Your task to perform on an android device: check the backup settings in the google photos Image 0: 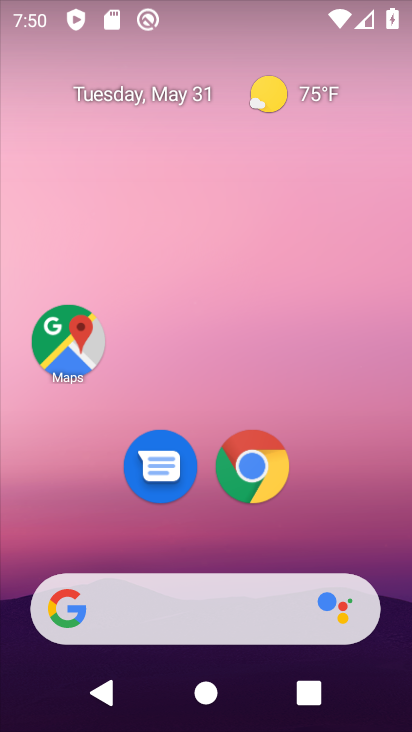
Step 0: drag from (191, 548) to (207, 93)
Your task to perform on an android device: check the backup settings in the google photos Image 1: 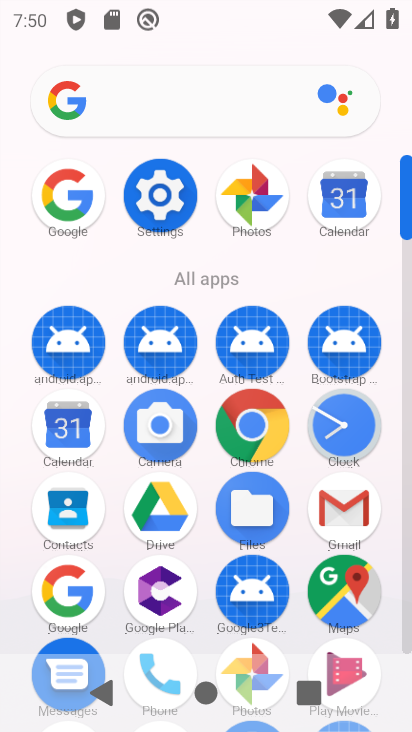
Step 1: drag from (208, 631) to (170, 259)
Your task to perform on an android device: check the backup settings in the google photos Image 2: 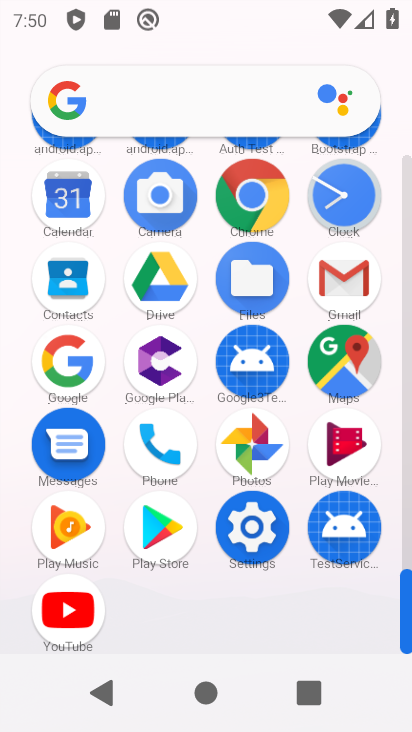
Step 2: click (259, 431)
Your task to perform on an android device: check the backup settings in the google photos Image 3: 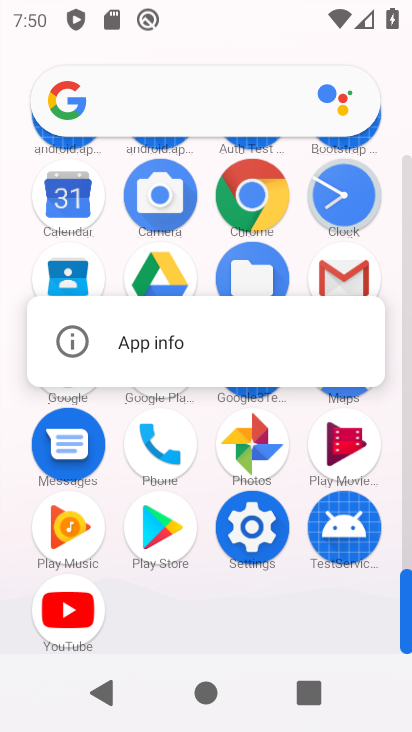
Step 3: click (140, 337)
Your task to perform on an android device: check the backup settings in the google photos Image 4: 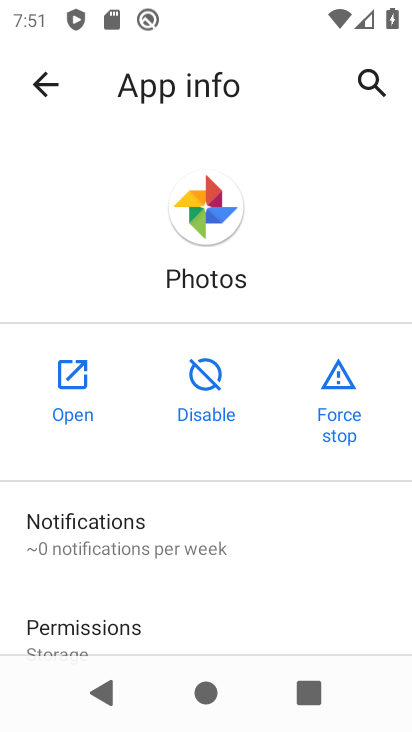
Step 4: click (71, 380)
Your task to perform on an android device: check the backup settings in the google photos Image 5: 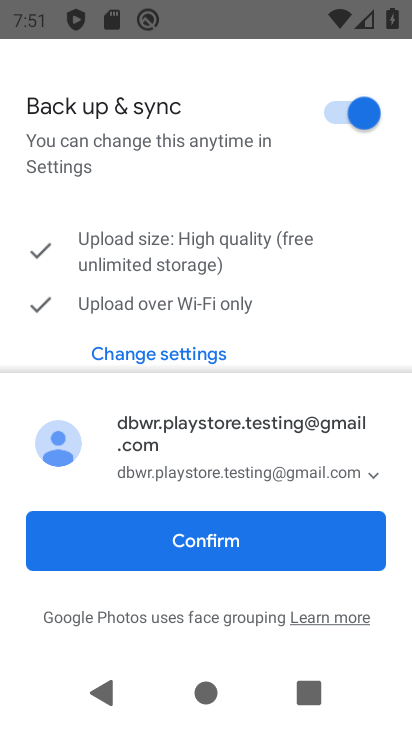
Step 5: click (218, 540)
Your task to perform on an android device: check the backup settings in the google photos Image 6: 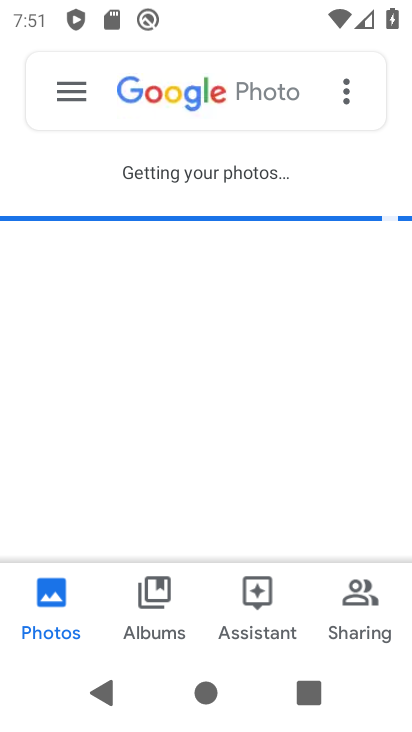
Step 6: click (67, 86)
Your task to perform on an android device: check the backup settings in the google photos Image 7: 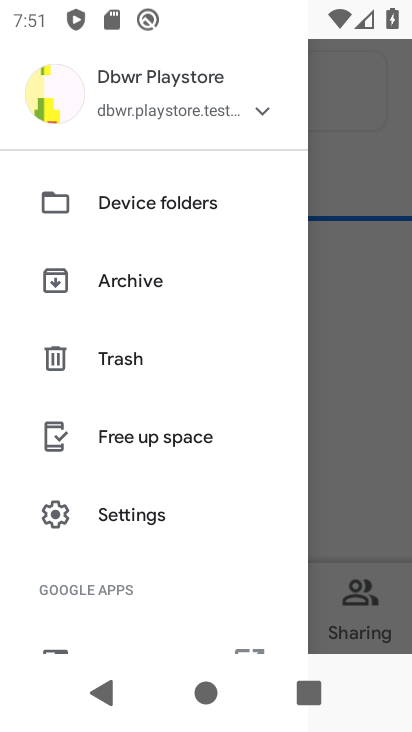
Step 7: click (126, 501)
Your task to perform on an android device: check the backup settings in the google photos Image 8: 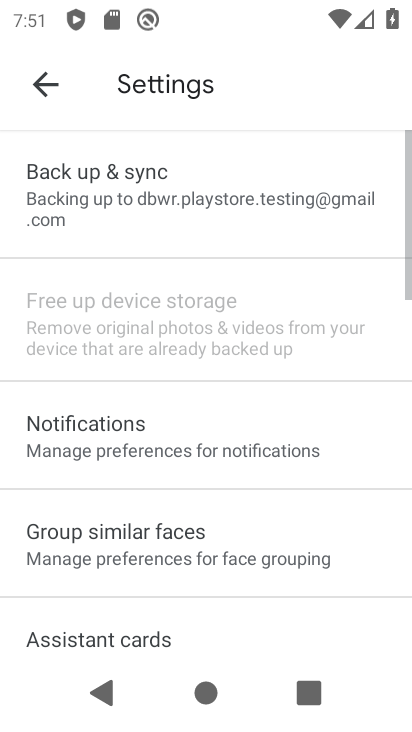
Step 8: click (140, 170)
Your task to perform on an android device: check the backup settings in the google photos Image 9: 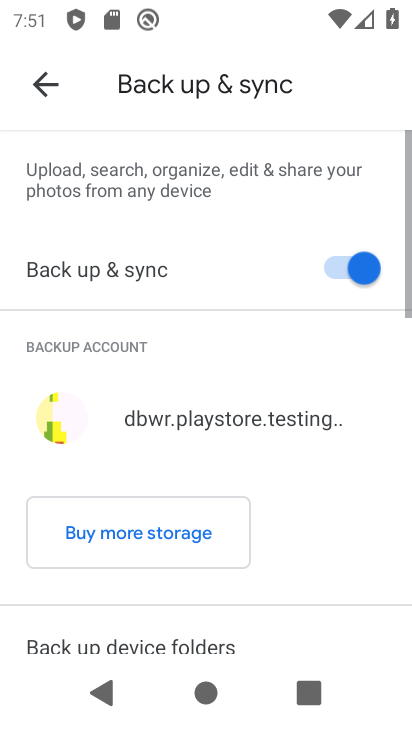
Step 9: task complete